Your task to perform on an android device: add a label to a message in the gmail app Image 0: 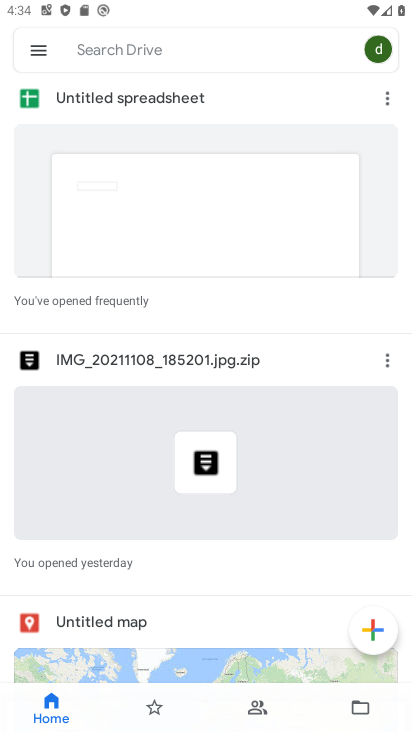
Step 0: press back button
Your task to perform on an android device: add a label to a message in the gmail app Image 1: 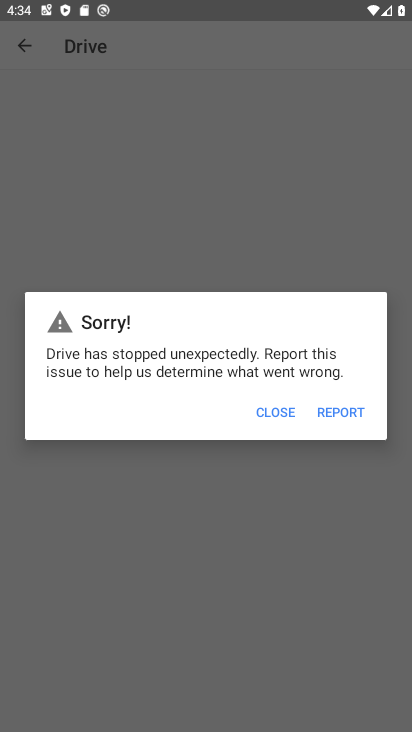
Step 1: press back button
Your task to perform on an android device: add a label to a message in the gmail app Image 2: 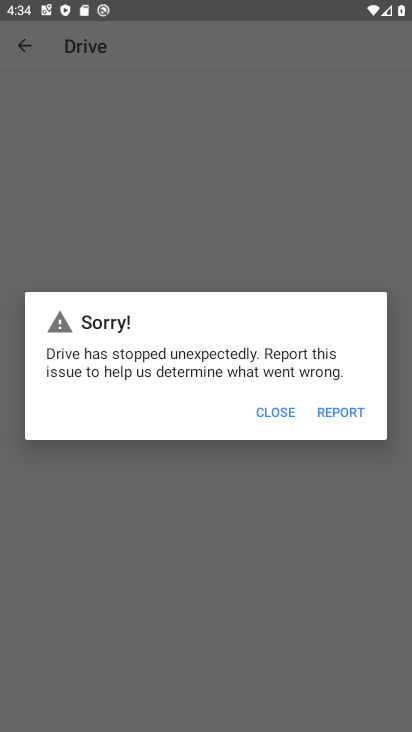
Step 2: press home button
Your task to perform on an android device: add a label to a message in the gmail app Image 3: 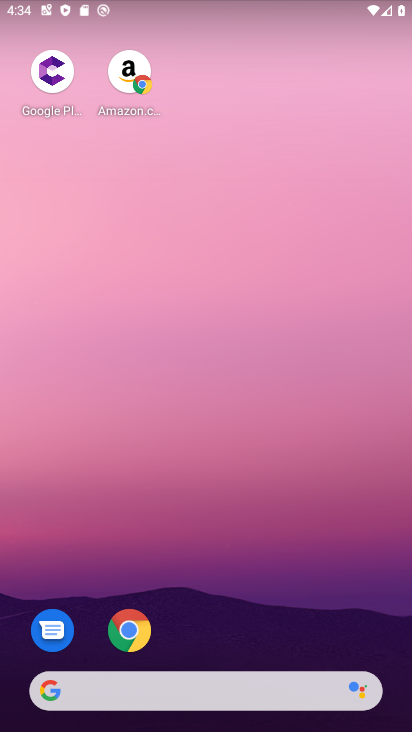
Step 3: drag from (270, 590) to (256, 55)
Your task to perform on an android device: add a label to a message in the gmail app Image 4: 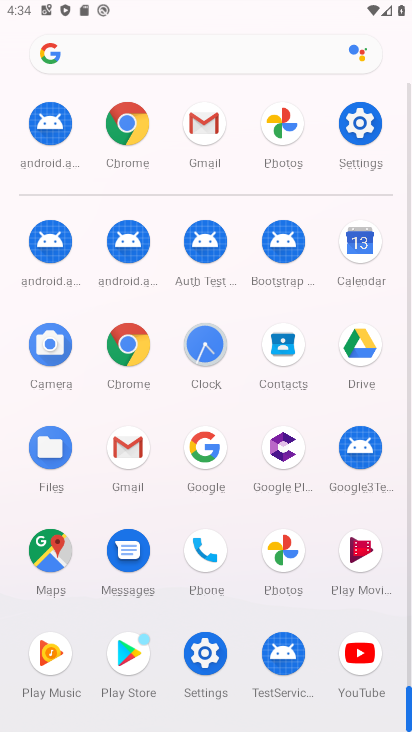
Step 4: drag from (9, 601) to (20, 341)
Your task to perform on an android device: add a label to a message in the gmail app Image 5: 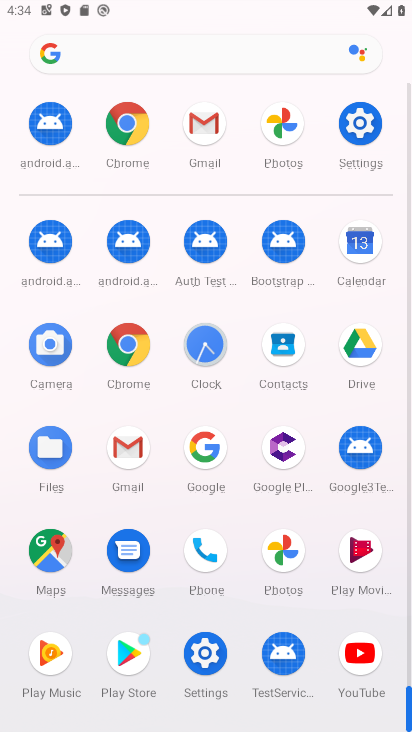
Step 5: click (128, 440)
Your task to perform on an android device: add a label to a message in the gmail app Image 6: 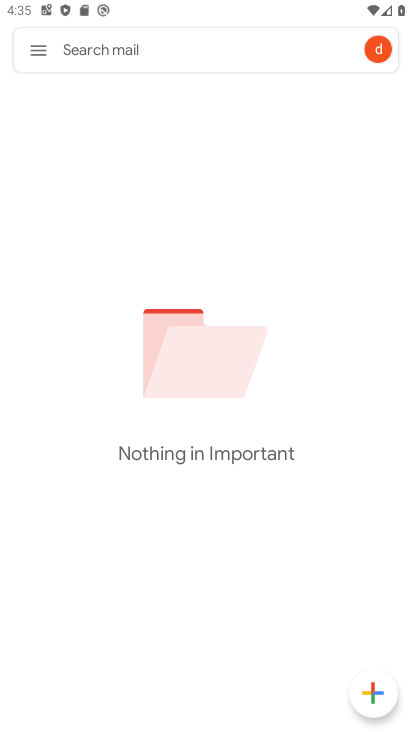
Step 6: click (36, 44)
Your task to perform on an android device: add a label to a message in the gmail app Image 7: 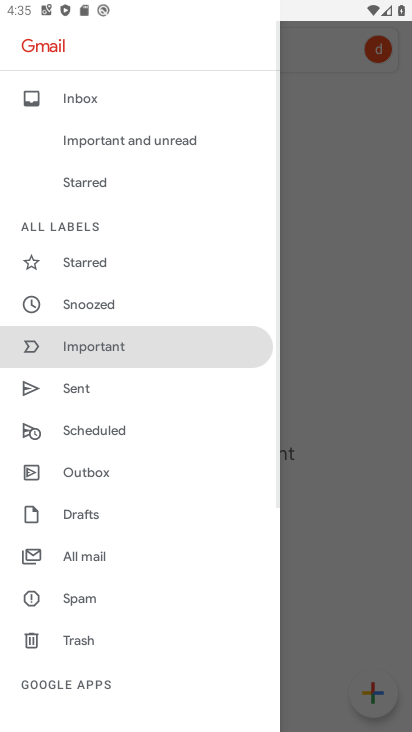
Step 7: drag from (199, 553) to (163, 122)
Your task to perform on an android device: add a label to a message in the gmail app Image 8: 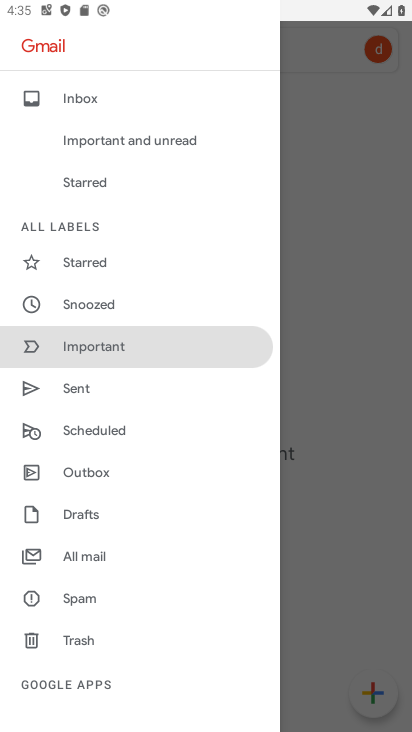
Step 8: drag from (130, 634) to (184, 290)
Your task to perform on an android device: add a label to a message in the gmail app Image 9: 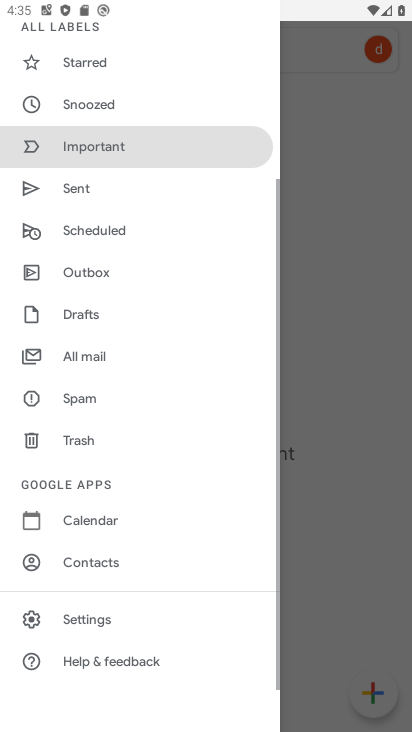
Step 9: click (84, 613)
Your task to perform on an android device: add a label to a message in the gmail app Image 10: 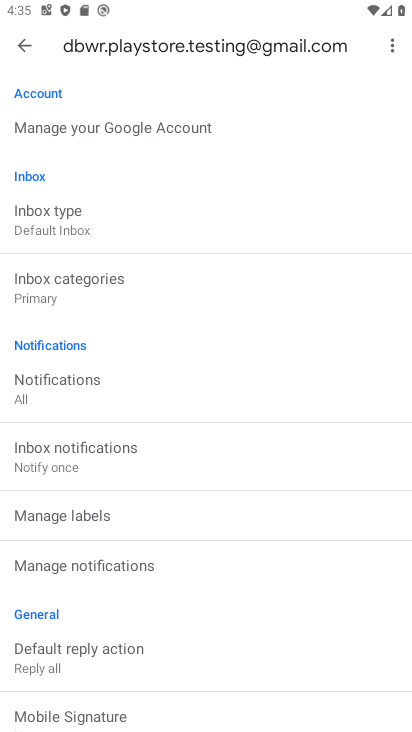
Step 10: click (3, 40)
Your task to perform on an android device: add a label to a message in the gmail app Image 11: 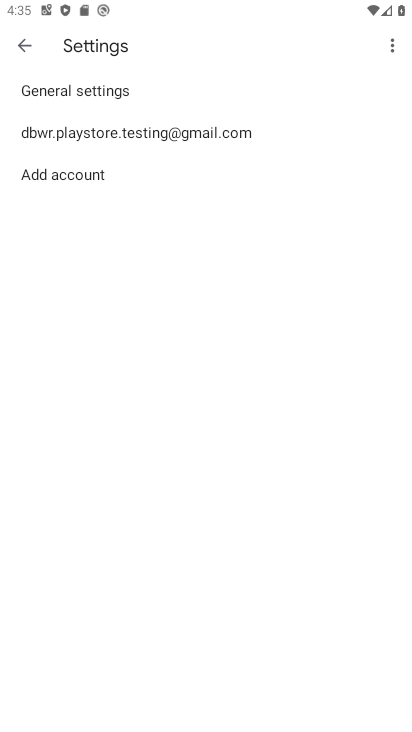
Step 11: click (18, 43)
Your task to perform on an android device: add a label to a message in the gmail app Image 12: 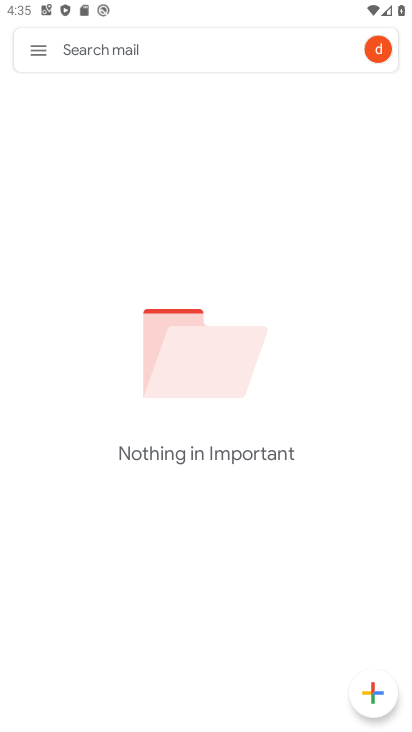
Step 12: click (30, 49)
Your task to perform on an android device: add a label to a message in the gmail app Image 13: 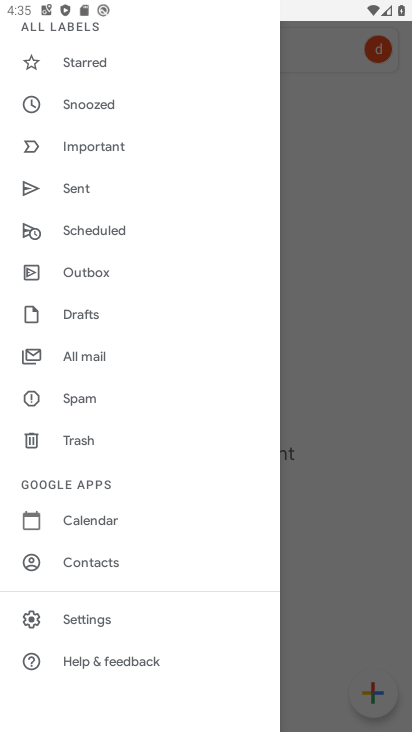
Step 13: click (107, 354)
Your task to perform on an android device: add a label to a message in the gmail app Image 14: 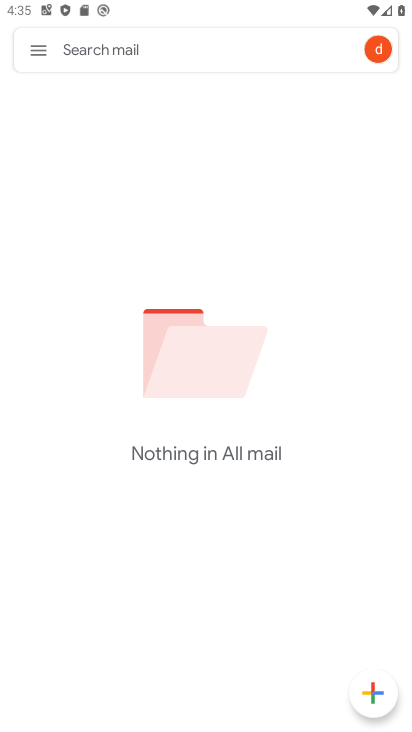
Step 14: click (34, 49)
Your task to perform on an android device: add a label to a message in the gmail app Image 15: 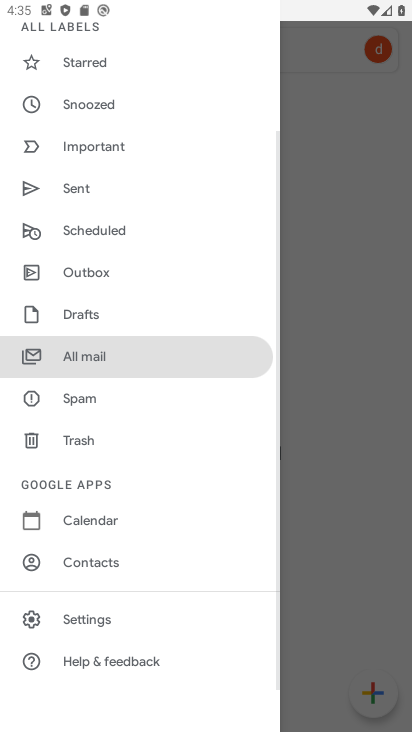
Step 15: drag from (147, 200) to (171, 544)
Your task to perform on an android device: add a label to a message in the gmail app Image 16: 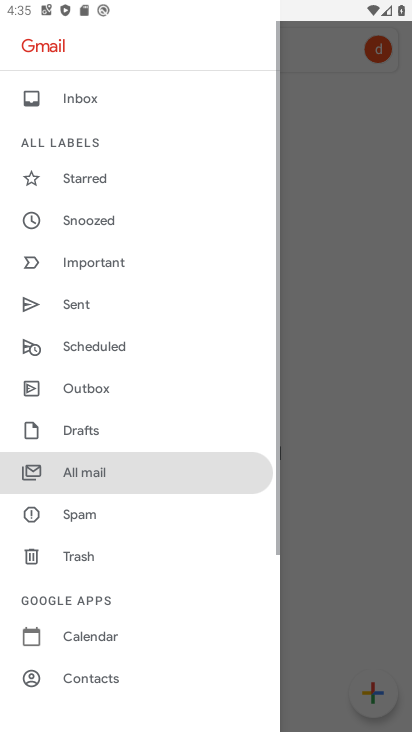
Step 16: click (107, 93)
Your task to perform on an android device: add a label to a message in the gmail app Image 17: 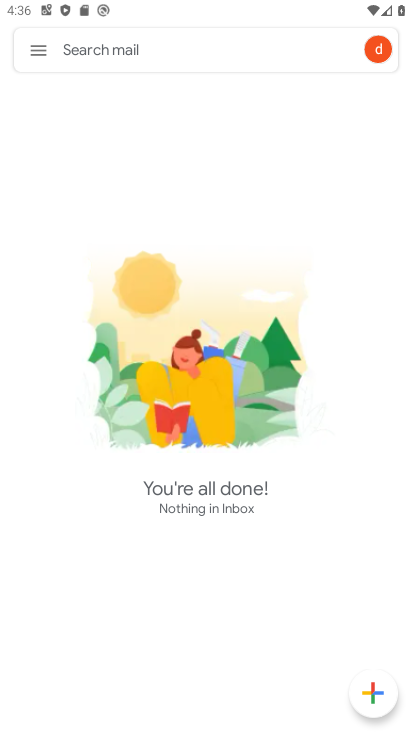
Step 17: click (43, 47)
Your task to perform on an android device: add a label to a message in the gmail app Image 18: 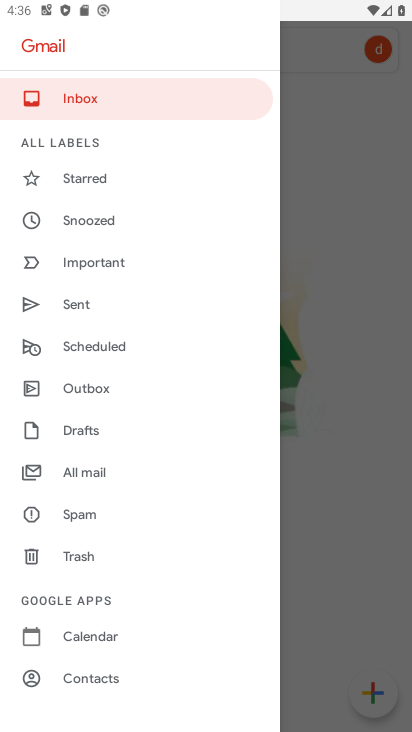
Step 18: click (100, 475)
Your task to perform on an android device: add a label to a message in the gmail app Image 19: 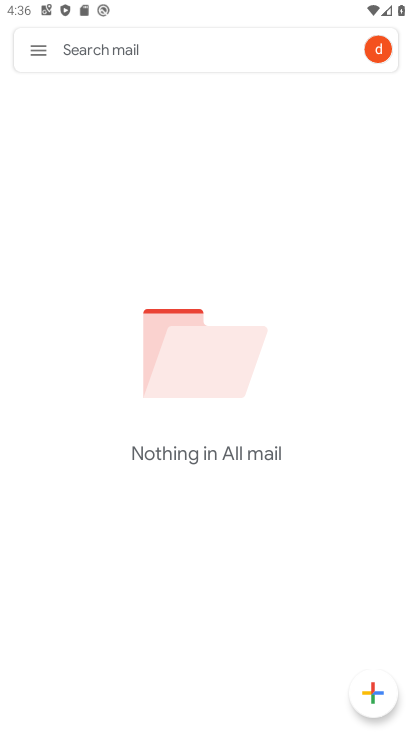
Step 19: task complete